Your task to perform on an android device: Open display settings Image 0: 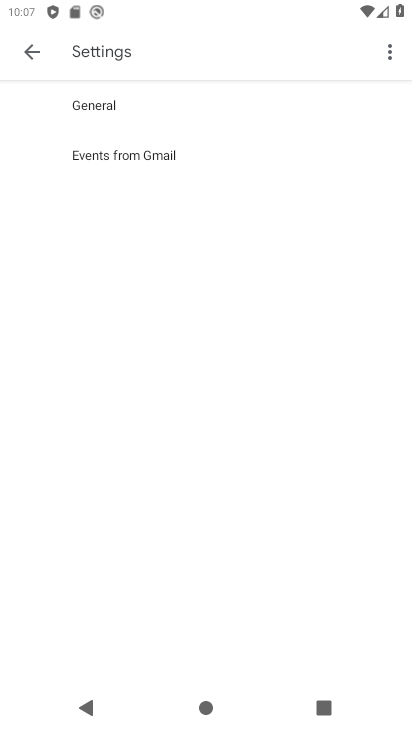
Step 0: press home button
Your task to perform on an android device: Open display settings Image 1: 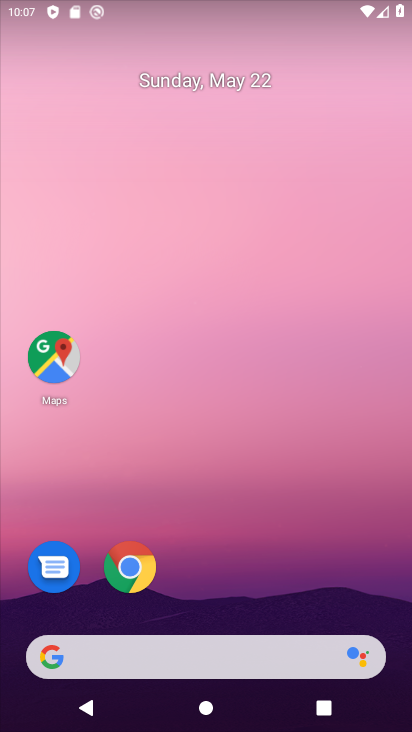
Step 1: drag from (391, 629) to (325, 14)
Your task to perform on an android device: Open display settings Image 2: 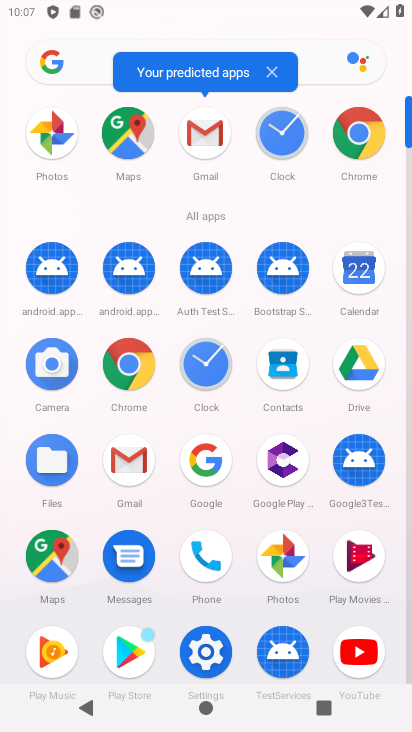
Step 2: click (410, 661)
Your task to perform on an android device: Open display settings Image 3: 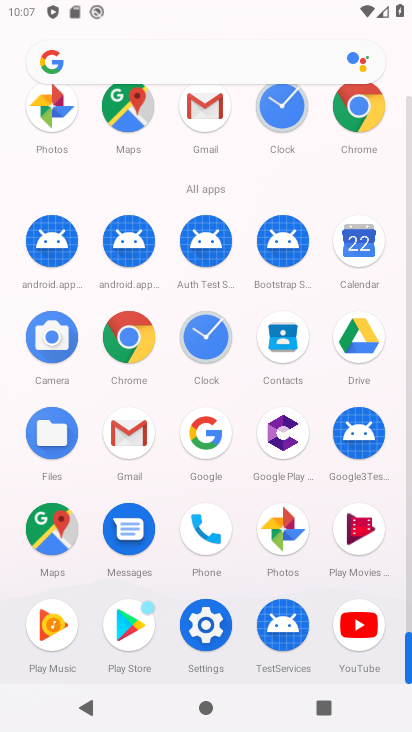
Step 3: click (205, 625)
Your task to perform on an android device: Open display settings Image 4: 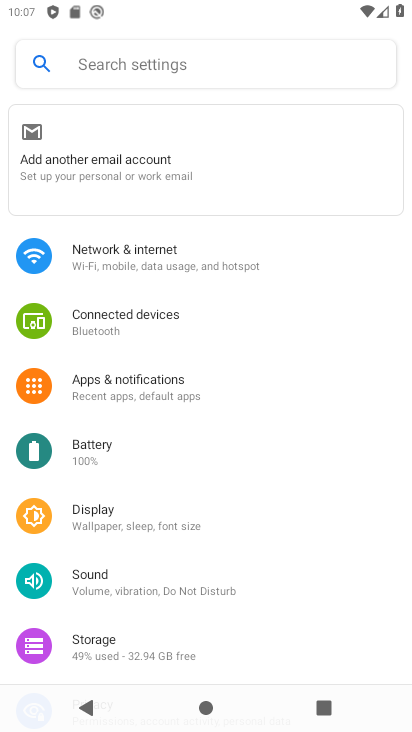
Step 4: click (89, 512)
Your task to perform on an android device: Open display settings Image 5: 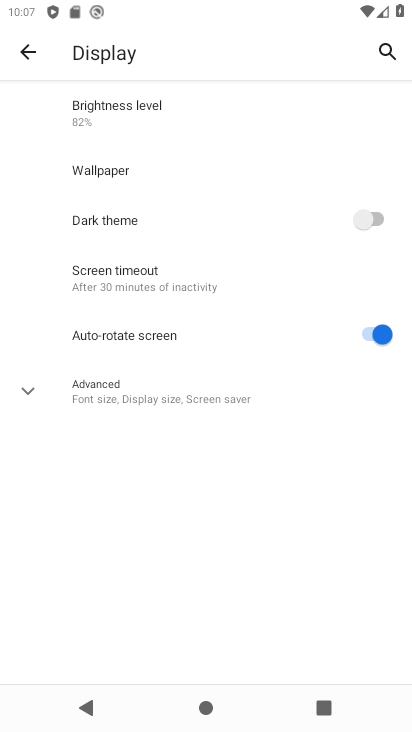
Step 5: click (28, 388)
Your task to perform on an android device: Open display settings Image 6: 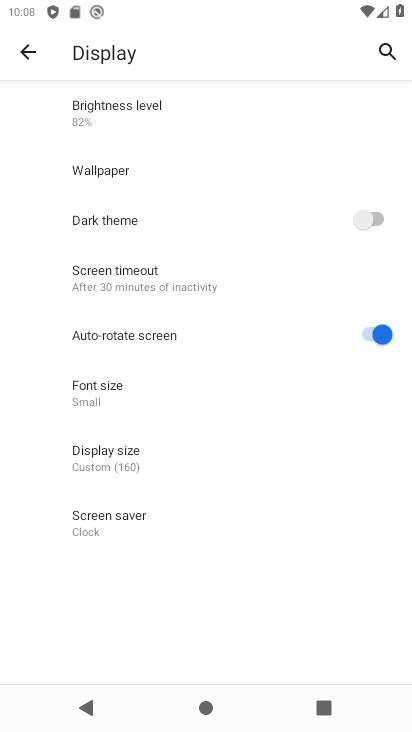
Step 6: task complete